Your task to perform on an android device: Turn on the flashlight Image 0: 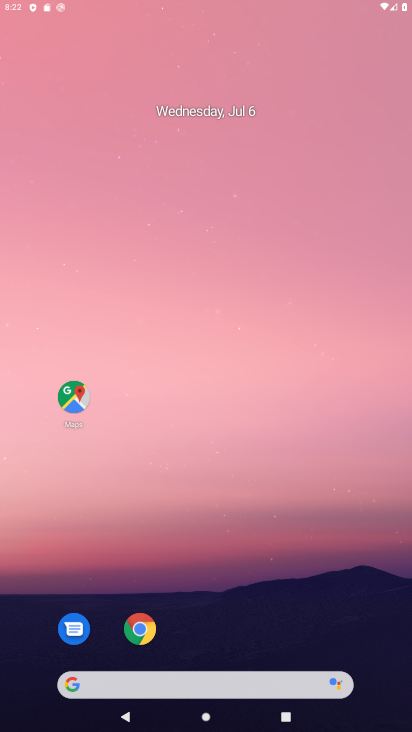
Step 0: click (295, 366)
Your task to perform on an android device: Turn on the flashlight Image 1: 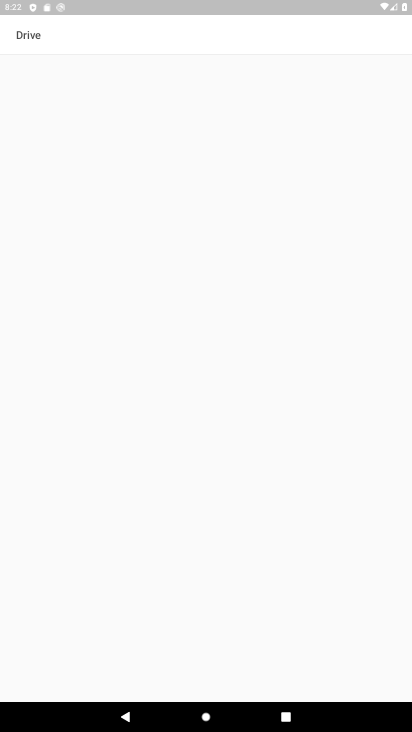
Step 1: drag from (211, 660) to (224, 359)
Your task to perform on an android device: Turn on the flashlight Image 2: 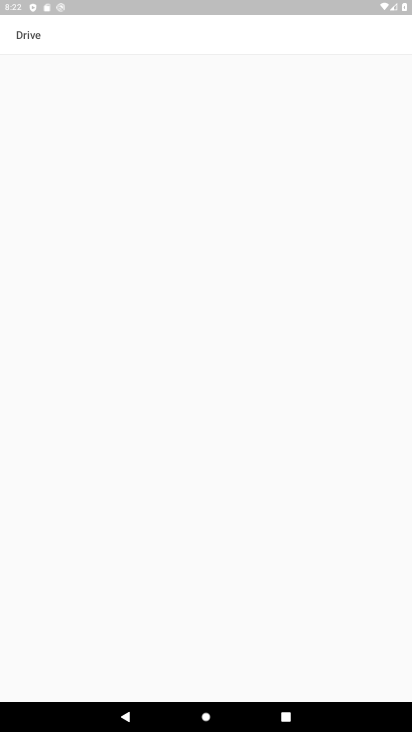
Step 2: press home button
Your task to perform on an android device: Turn on the flashlight Image 3: 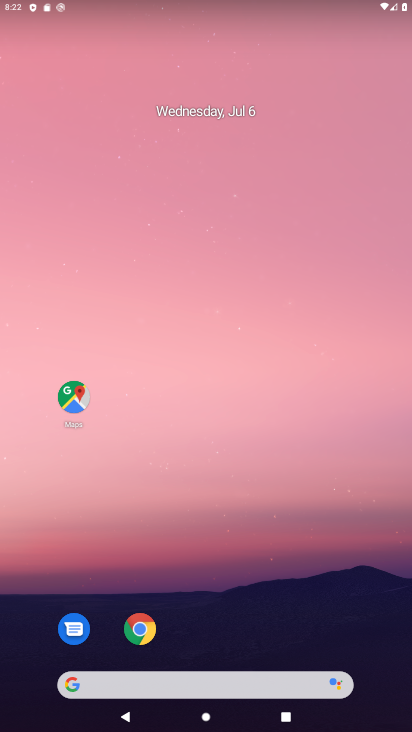
Step 3: drag from (203, 649) to (136, 144)
Your task to perform on an android device: Turn on the flashlight Image 4: 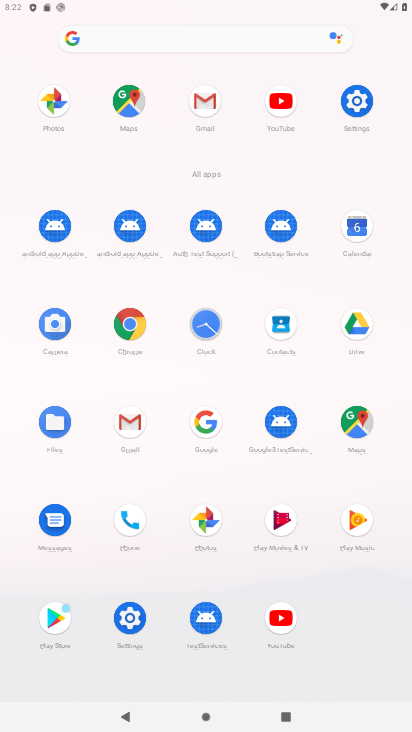
Step 4: click (363, 90)
Your task to perform on an android device: Turn on the flashlight Image 5: 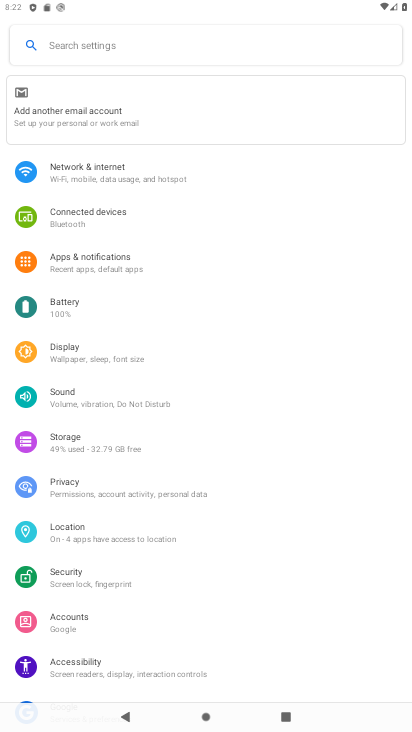
Step 5: drag from (145, 582) to (125, 201)
Your task to perform on an android device: Turn on the flashlight Image 6: 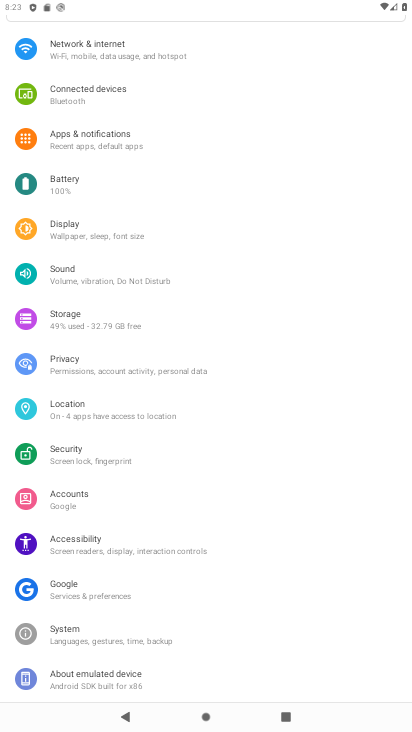
Step 6: drag from (165, 554) to (111, 118)
Your task to perform on an android device: Turn on the flashlight Image 7: 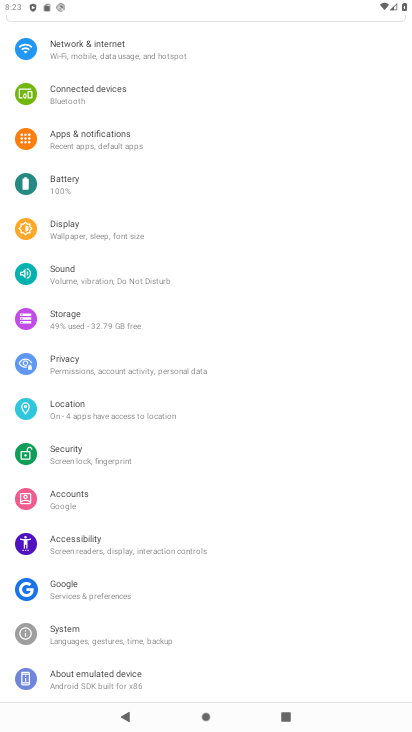
Step 7: drag from (111, 114) to (100, 576)
Your task to perform on an android device: Turn on the flashlight Image 8: 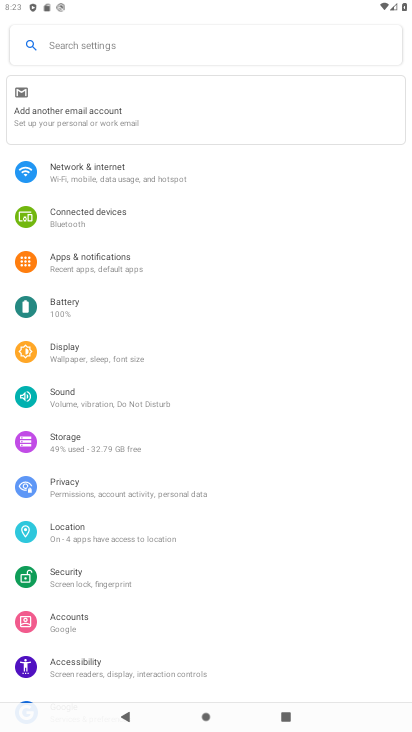
Step 8: drag from (156, 289) to (155, 541)
Your task to perform on an android device: Turn on the flashlight Image 9: 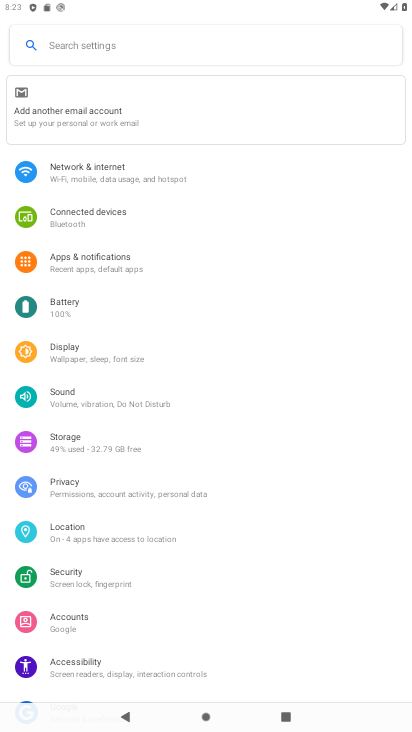
Step 9: click (93, 516)
Your task to perform on an android device: Turn on the flashlight Image 10: 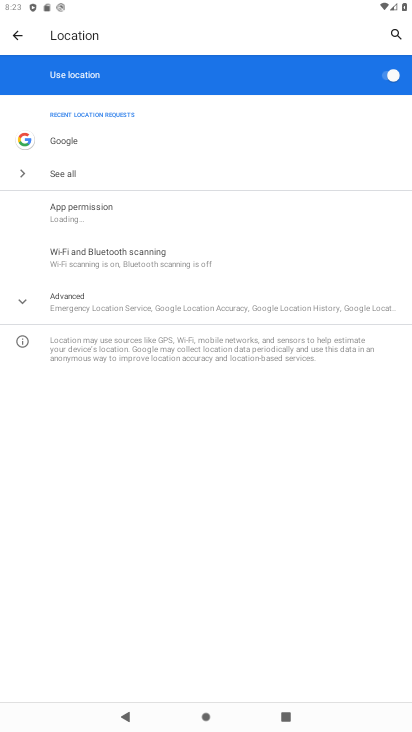
Step 10: click (25, 29)
Your task to perform on an android device: Turn on the flashlight Image 11: 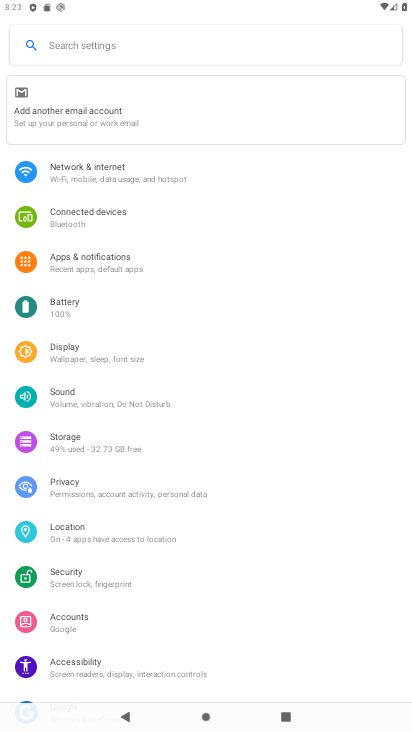
Step 11: task complete